Your task to perform on an android device: turn on showing notifications on the lock screen Image 0: 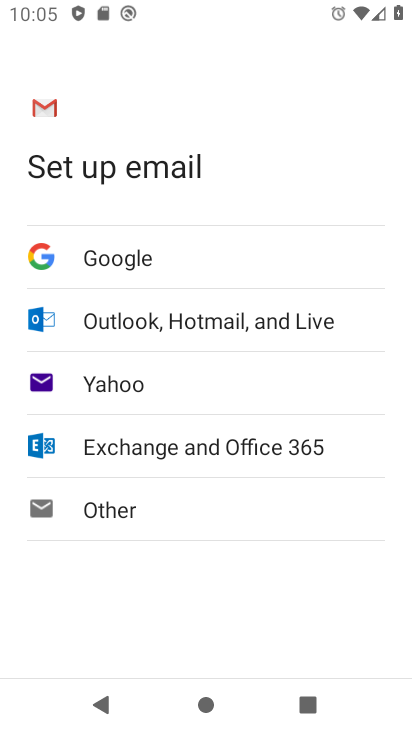
Step 0: press home button
Your task to perform on an android device: turn on showing notifications on the lock screen Image 1: 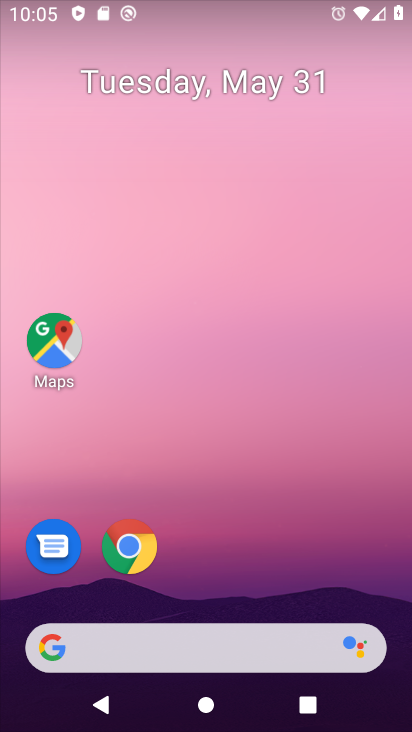
Step 1: drag from (210, 648) to (270, 3)
Your task to perform on an android device: turn on showing notifications on the lock screen Image 2: 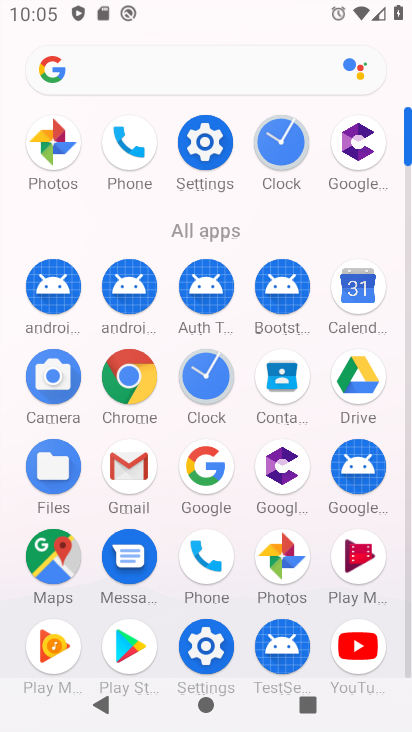
Step 2: click (201, 160)
Your task to perform on an android device: turn on showing notifications on the lock screen Image 3: 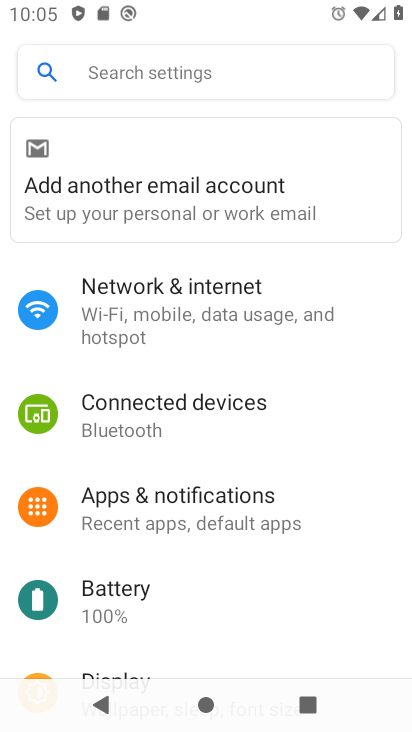
Step 3: click (211, 523)
Your task to perform on an android device: turn on showing notifications on the lock screen Image 4: 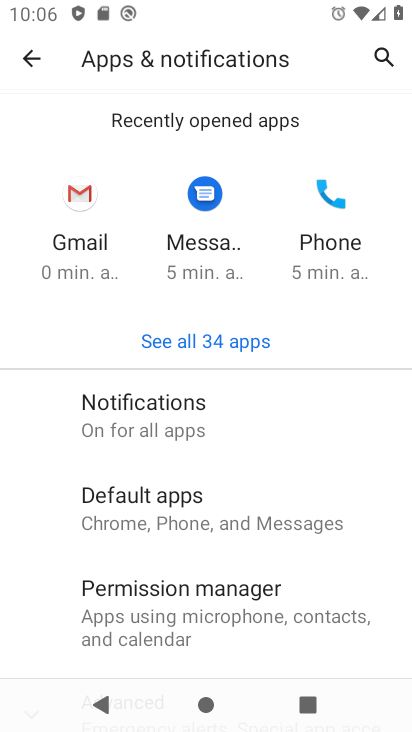
Step 4: click (166, 412)
Your task to perform on an android device: turn on showing notifications on the lock screen Image 5: 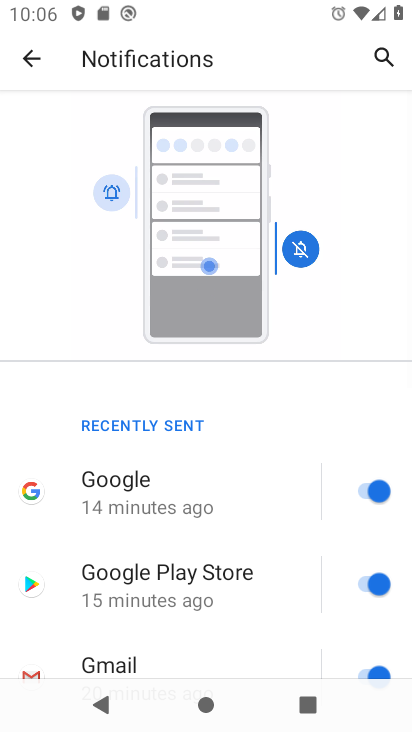
Step 5: click (82, 390)
Your task to perform on an android device: turn on showing notifications on the lock screen Image 6: 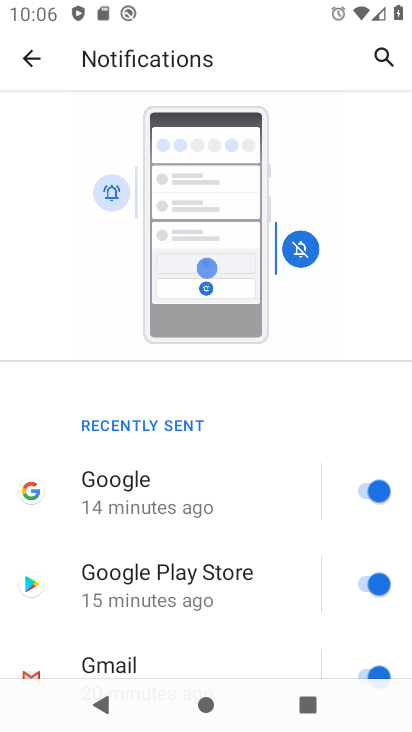
Step 6: click (245, 392)
Your task to perform on an android device: turn on showing notifications on the lock screen Image 7: 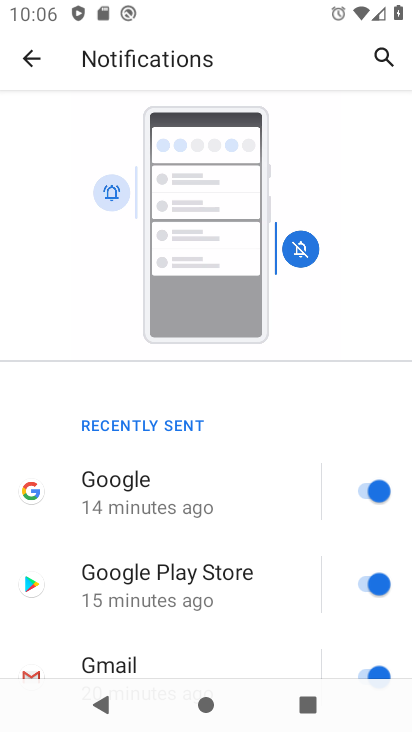
Step 7: drag from (177, 623) to (215, 36)
Your task to perform on an android device: turn on showing notifications on the lock screen Image 8: 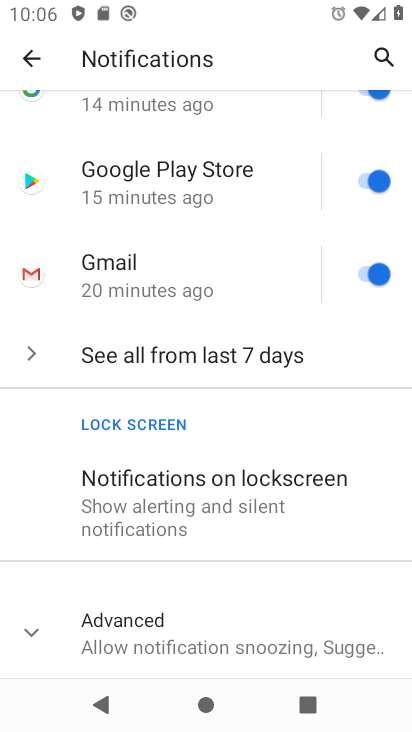
Step 8: click (264, 494)
Your task to perform on an android device: turn on showing notifications on the lock screen Image 9: 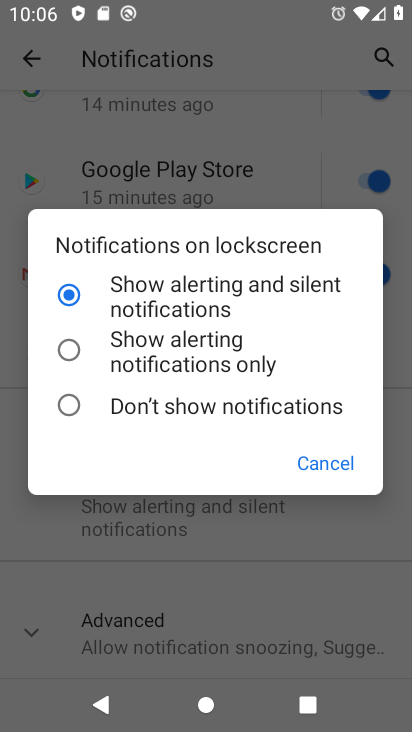
Step 9: task complete